Your task to perform on an android device: check data usage Image 0: 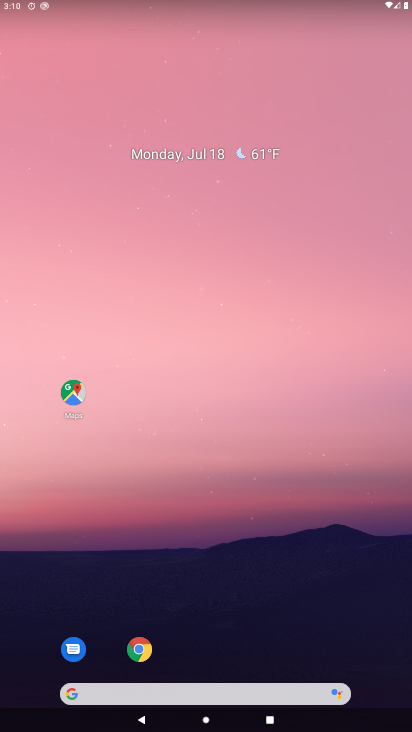
Step 0: drag from (34, 620) to (197, 273)
Your task to perform on an android device: check data usage Image 1: 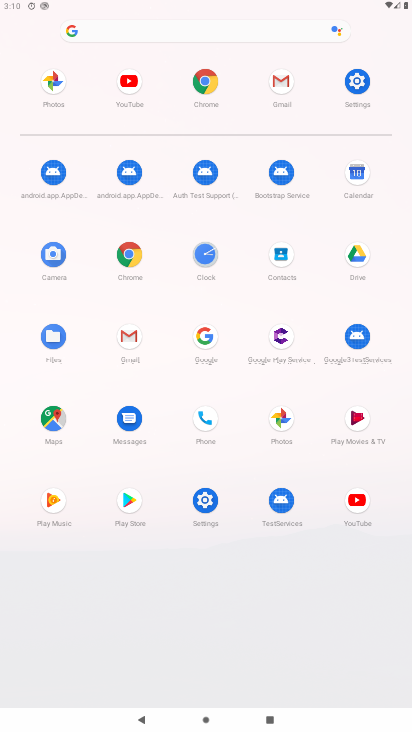
Step 1: click (209, 503)
Your task to perform on an android device: check data usage Image 2: 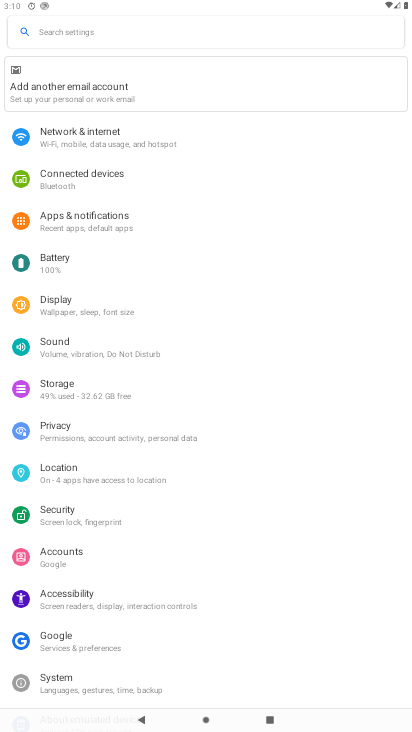
Step 2: click (99, 144)
Your task to perform on an android device: check data usage Image 3: 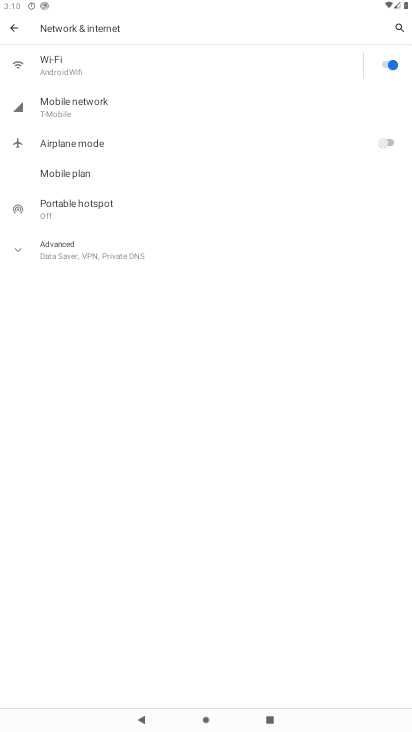
Step 3: click (52, 254)
Your task to perform on an android device: check data usage Image 4: 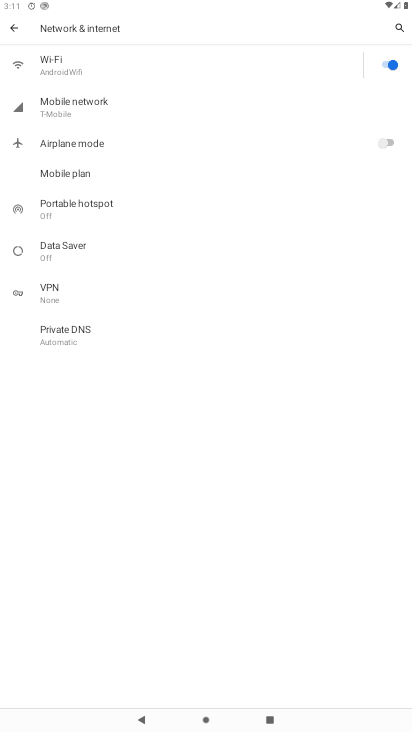
Step 4: click (81, 107)
Your task to perform on an android device: check data usage Image 5: 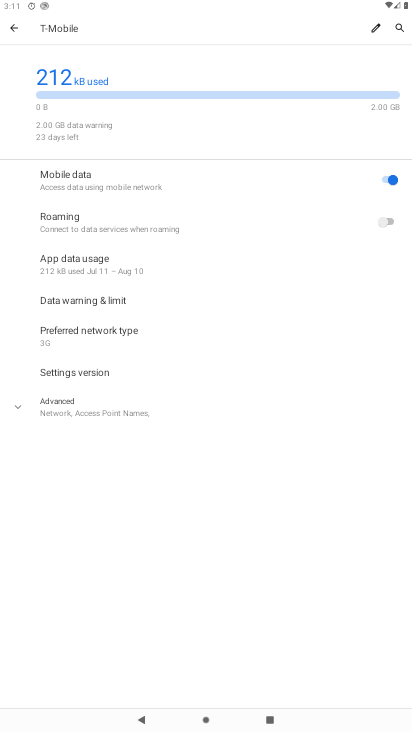
Step 5: task complete